Your task to perform on an android device: Open my contact list Image 0: 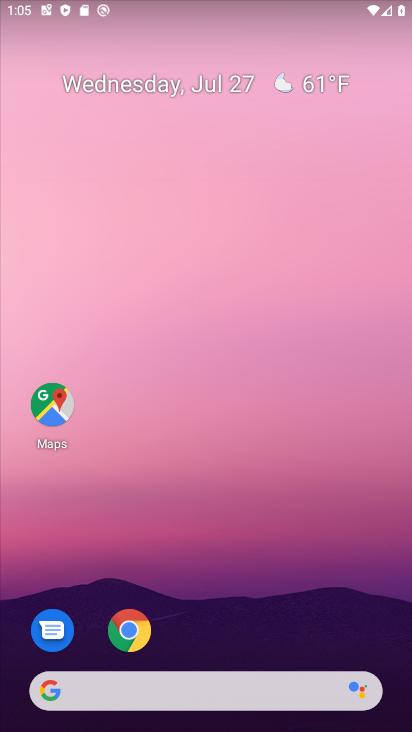
Step 0: drag from (232, 558) to (271, 84)
Your task to perform on an android device: Open my contact list Image 1: 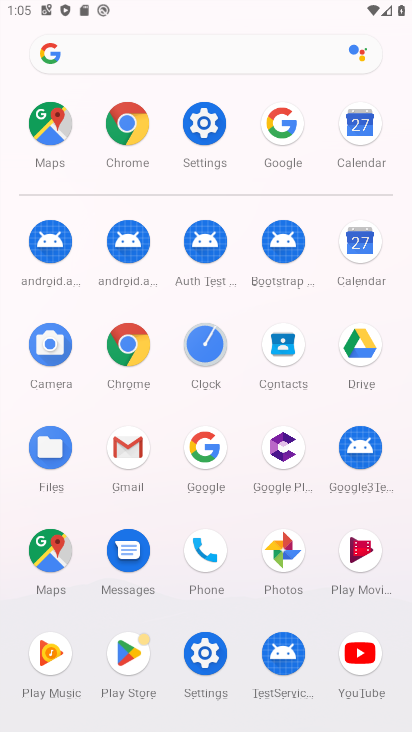
Step 1: click (271, 351)
Your task to perform on an android device: Open my contact list Image 2: 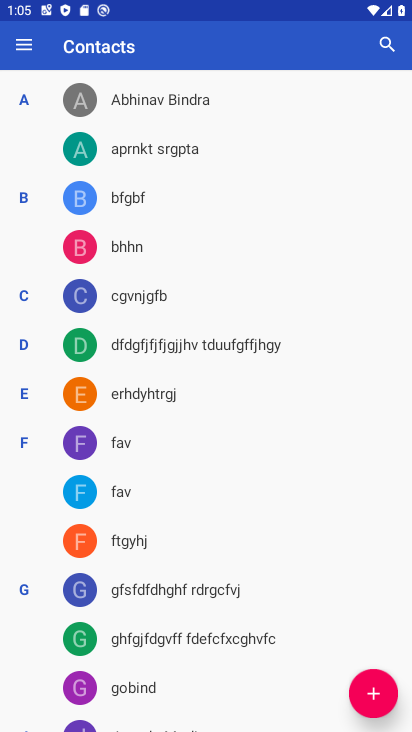
Step 2: task complete